Your task to perform on an android device: turn pop-ups on in chrome Image 0: 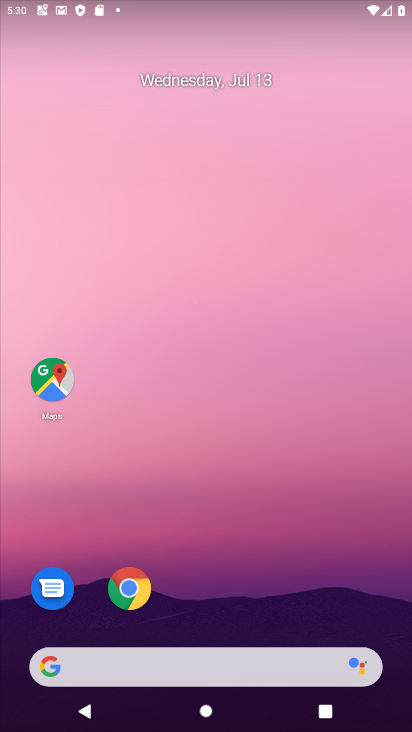
Step 0: click (134, 595)
Your task to perform on an android device: turn pop-ups on in chrome Image 1: 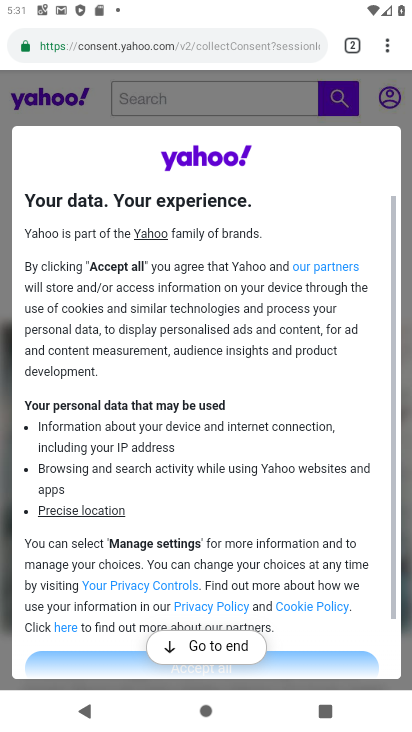
Step 1: press home button
Your task to perform on an android device: turn pop-ups on in chrome Image 2: 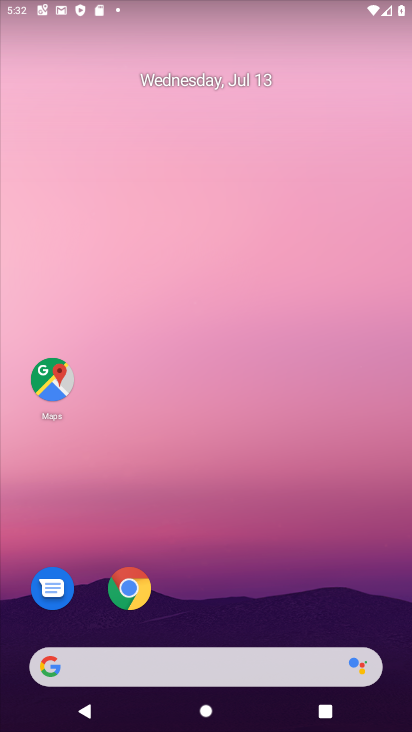
Step 2: click (133, 593)
Your task to perform on an android device: turn pop-ups on in chrome Image 3: 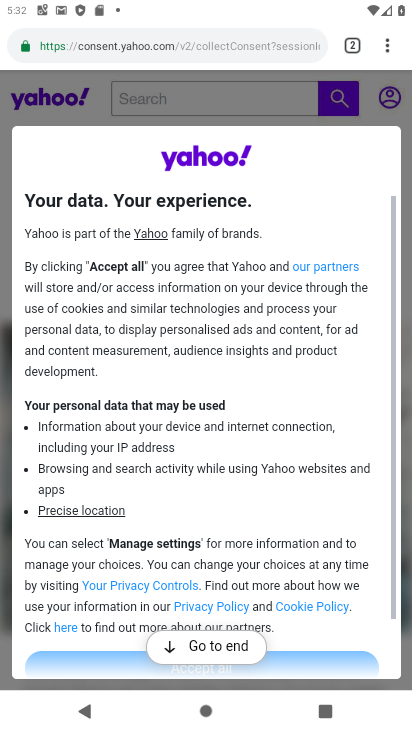
Step 3: click (388, 48)
Your task to perform on an android device: turn pop-ups on in chrome Image 4: 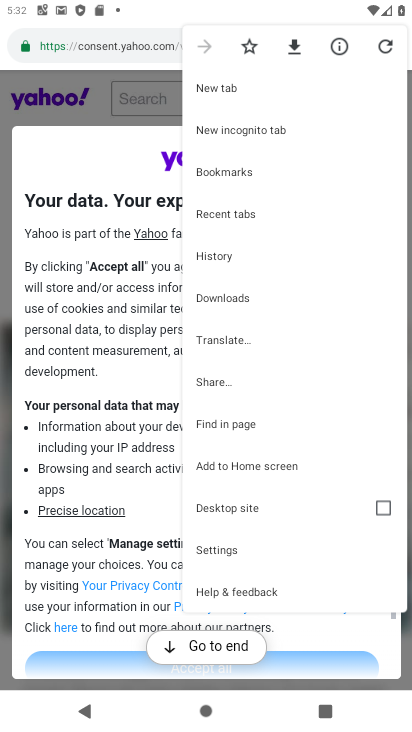
Step 4: click (227, 552)
Your task to perform on an android device: turn pop-ups on in chrome Image 5: 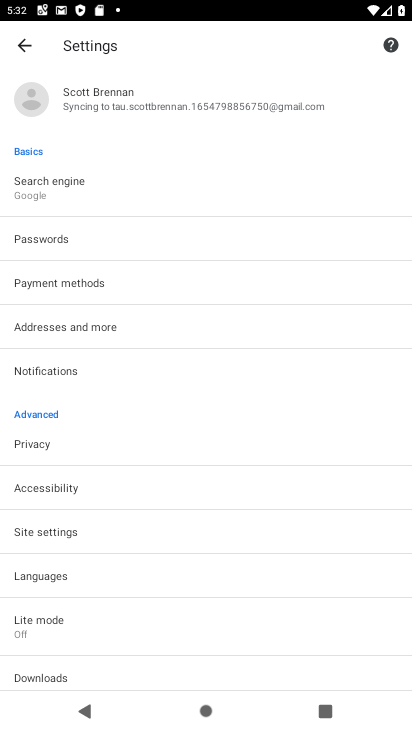
Step 5: click (41, 528)
Your task to perform on an android device: turn pop-ups on in chrome Image 6: 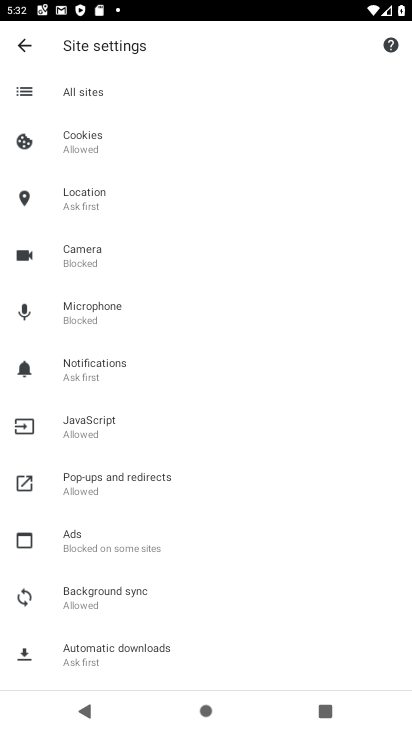
Step 6: click (106, 493)
Your task to perform on an android device: turn pop-ups on in chrome Image 7: 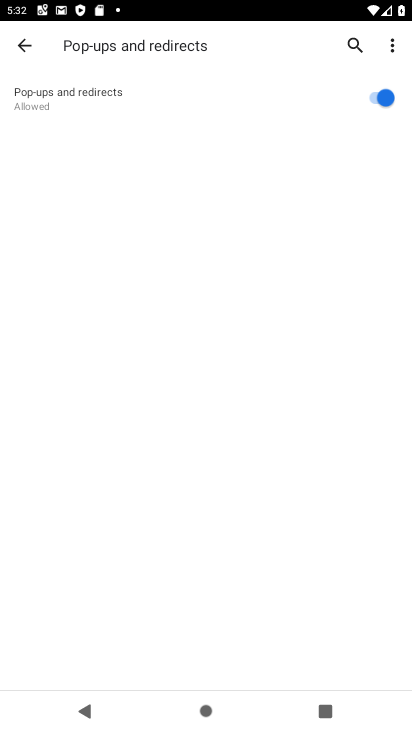
Step 7: task complete